Your task to perform on an android device: open app "Microsoft Excel" (install if not already installed) Image 0: 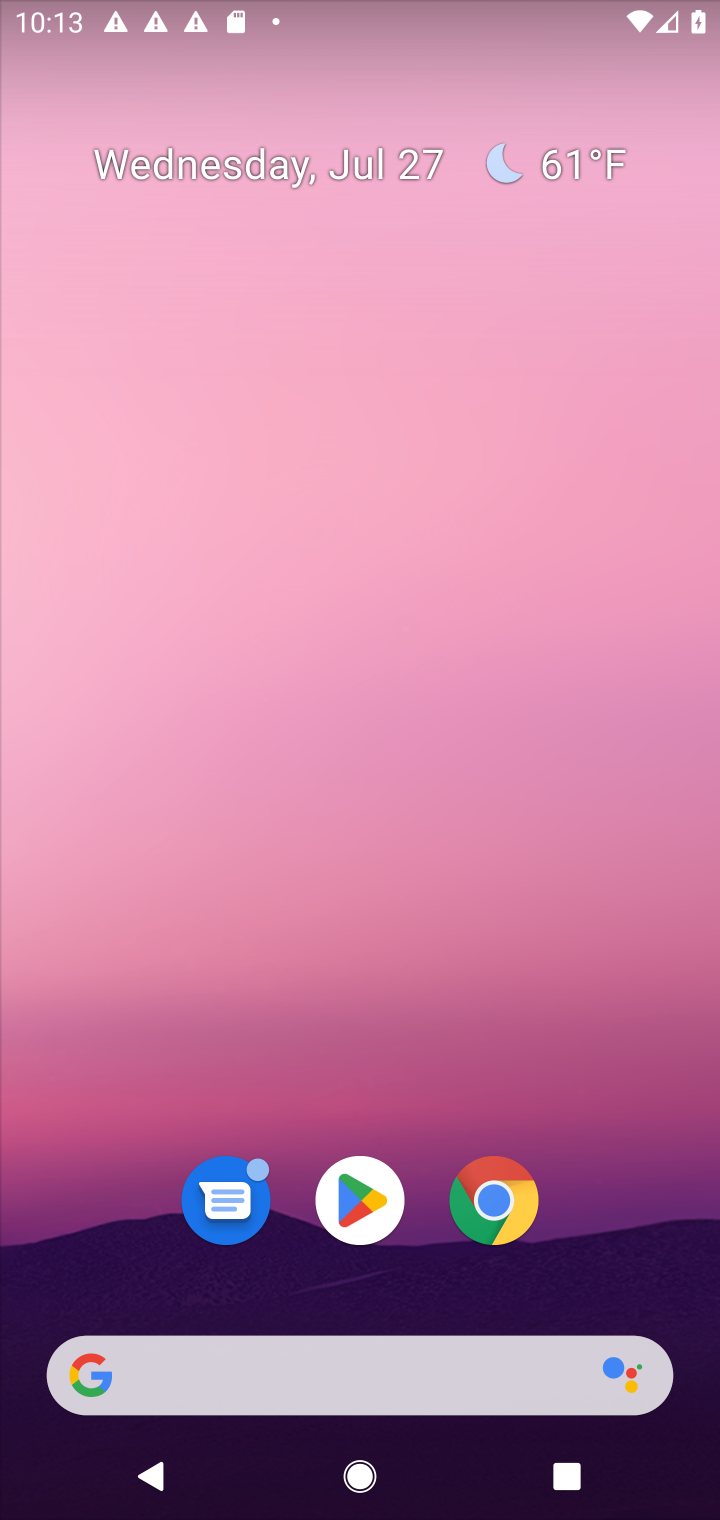
Step 0: click (389, 1204)
Your task to perform on an android device: open app "Microsoft Excel" (install if not already installed) Image 1: 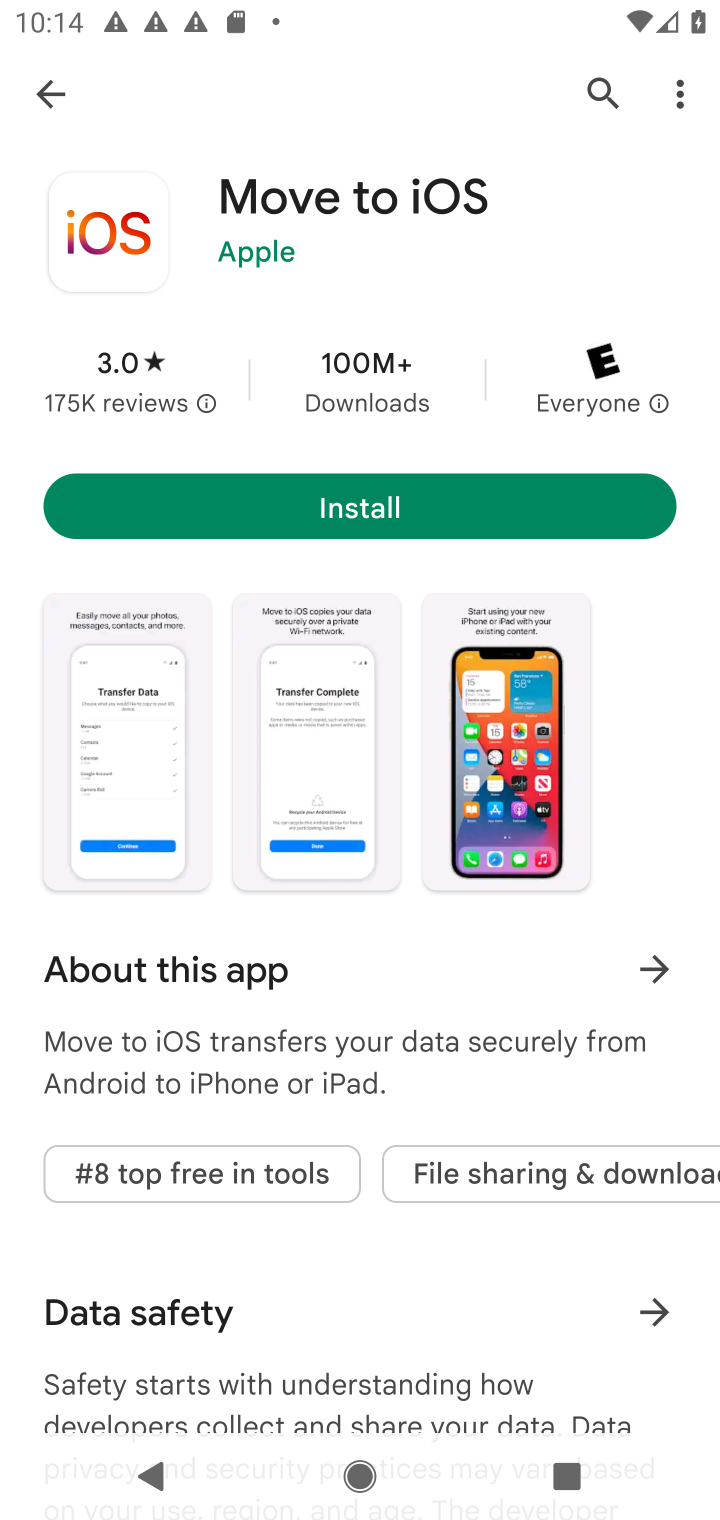
Step 1: click (44, 94)
Your task to perform on an android device: open app "Microsoft Excel" (install if not already installed) Image 2: 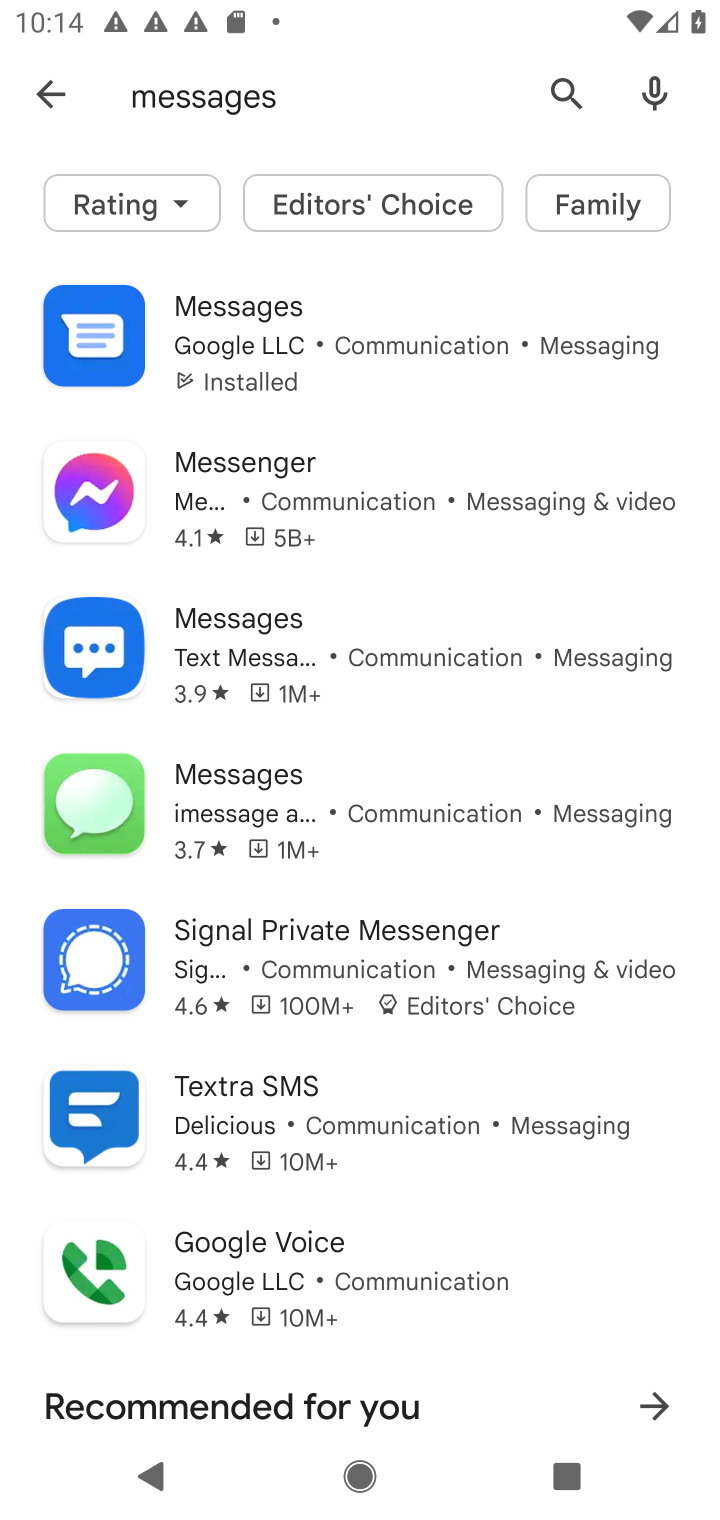
Step 2: click (554, 102)
Your task to perform on an android device: open app "Microsoft Excel" (install if not already installed) Image 3: 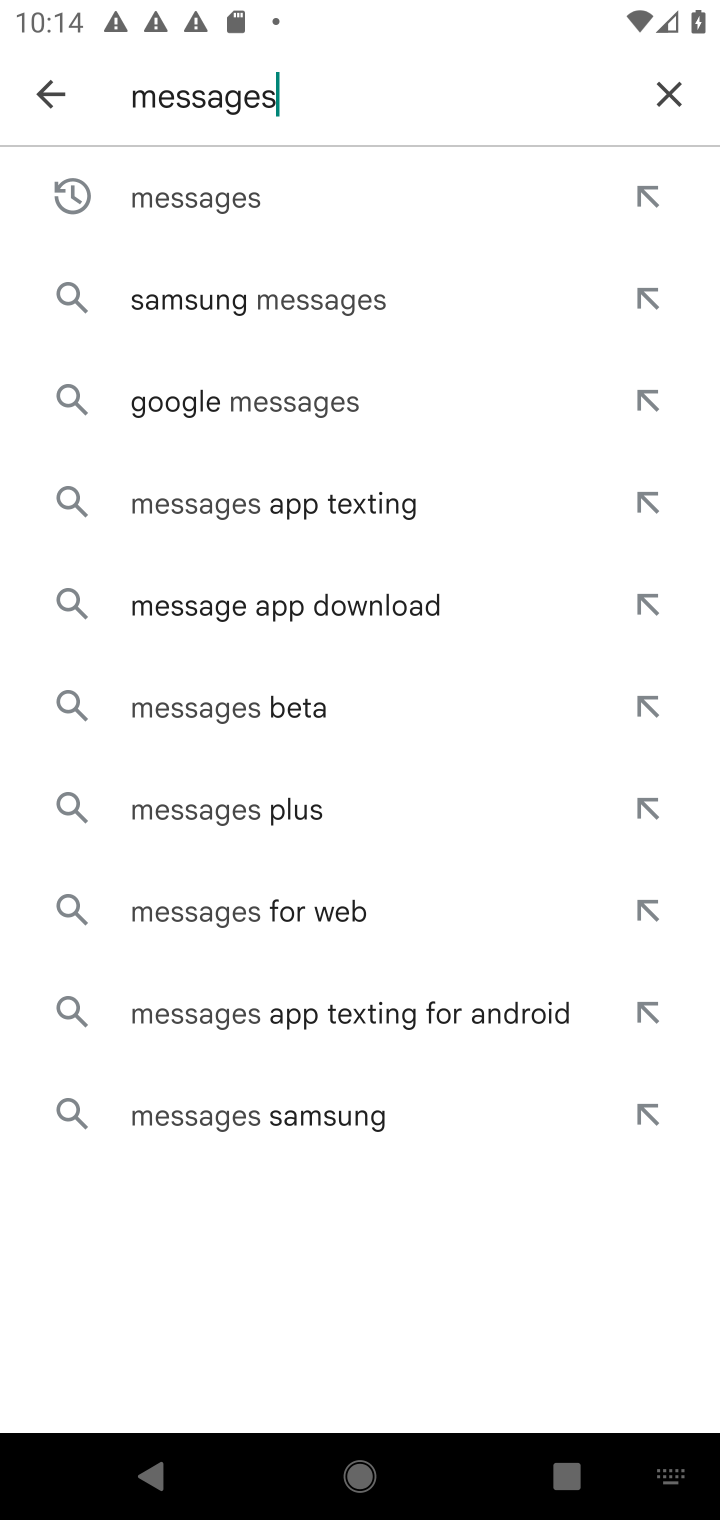
Step 3: click (664, 85)
Your task to perform on an android device: open app "Microsoft Excel" (install if not already installed) Image 4: 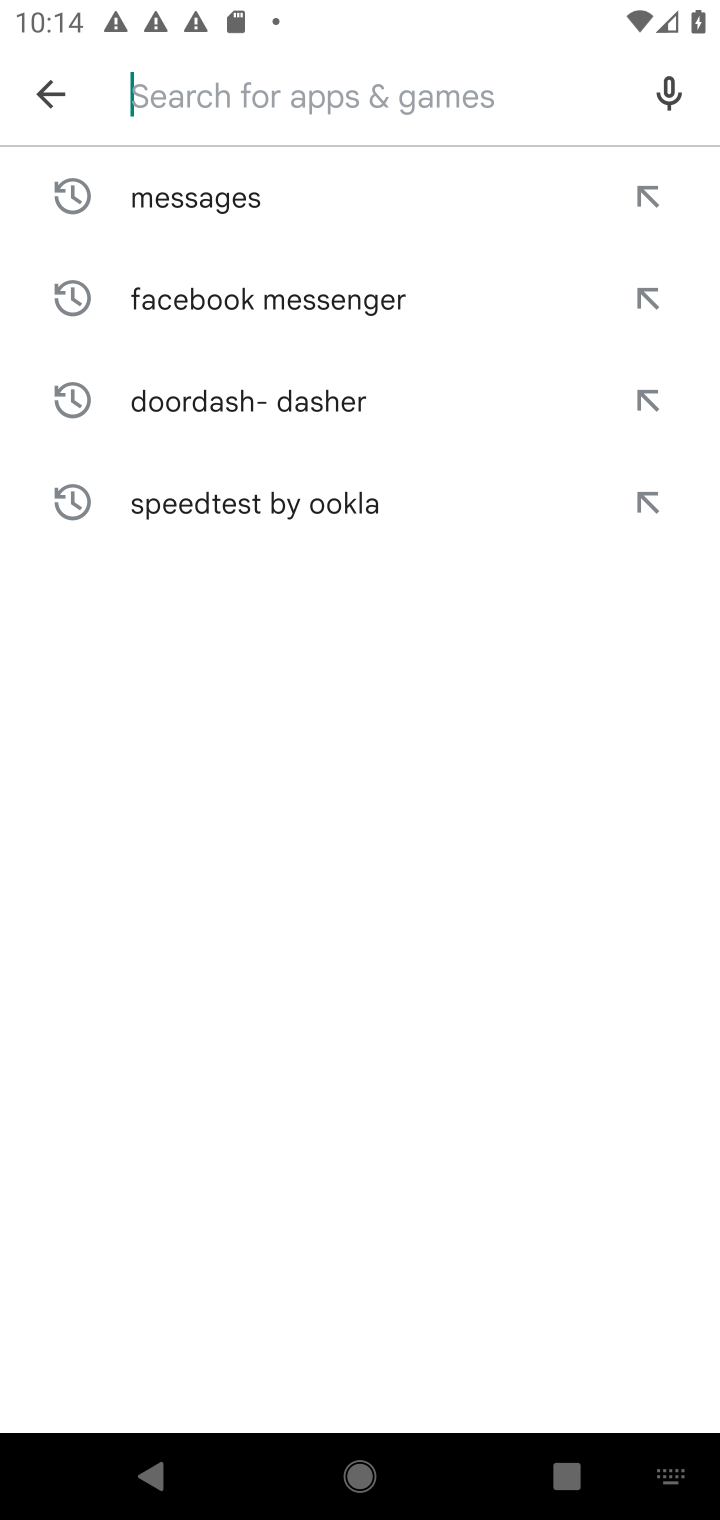
Step 4: type "microsoft excel"
Your task to perform on an android device: open app "Microsoft Excel" (install if not already installed) Image 5: 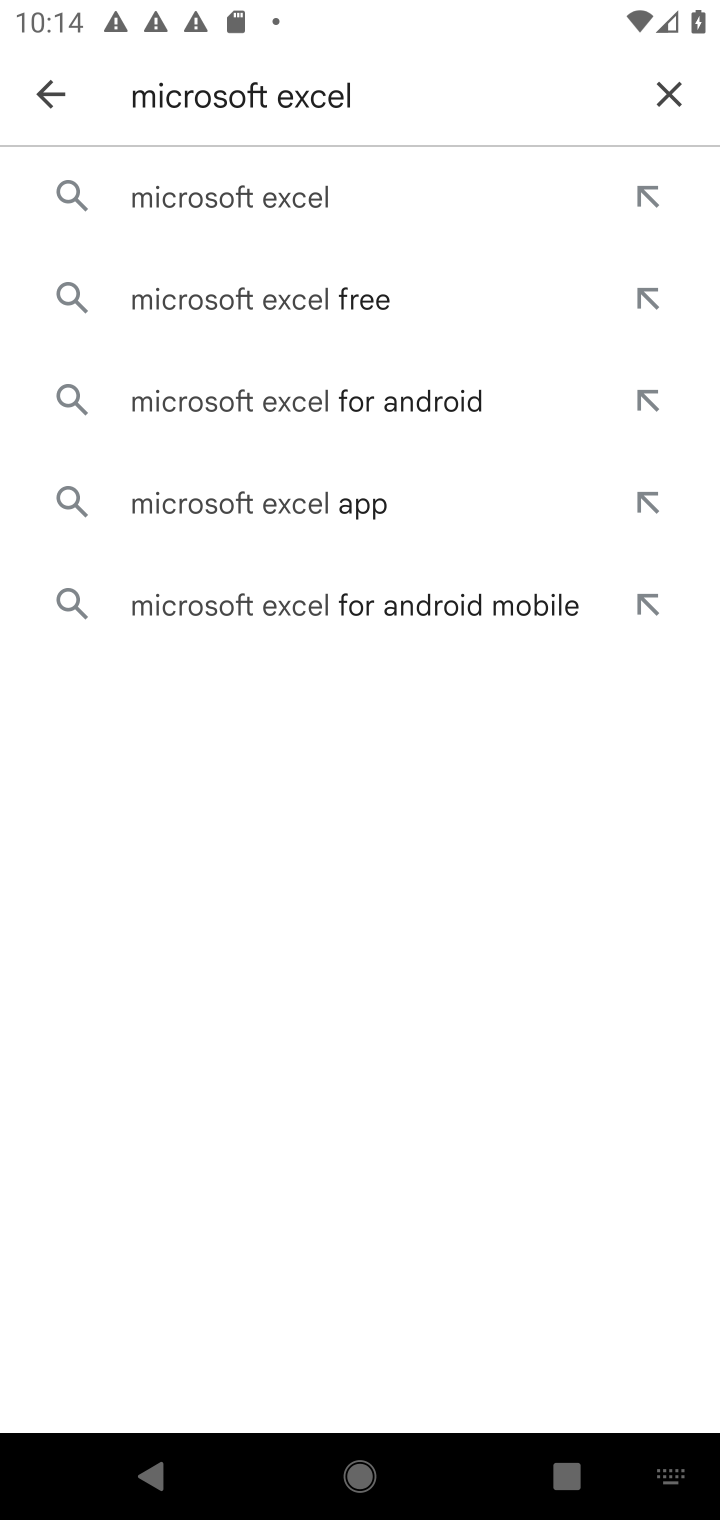
Step 5: click (234, 188)
Your task to perform on an android device: open app "Microsoft Excel" (install if not already installed) Image 6: 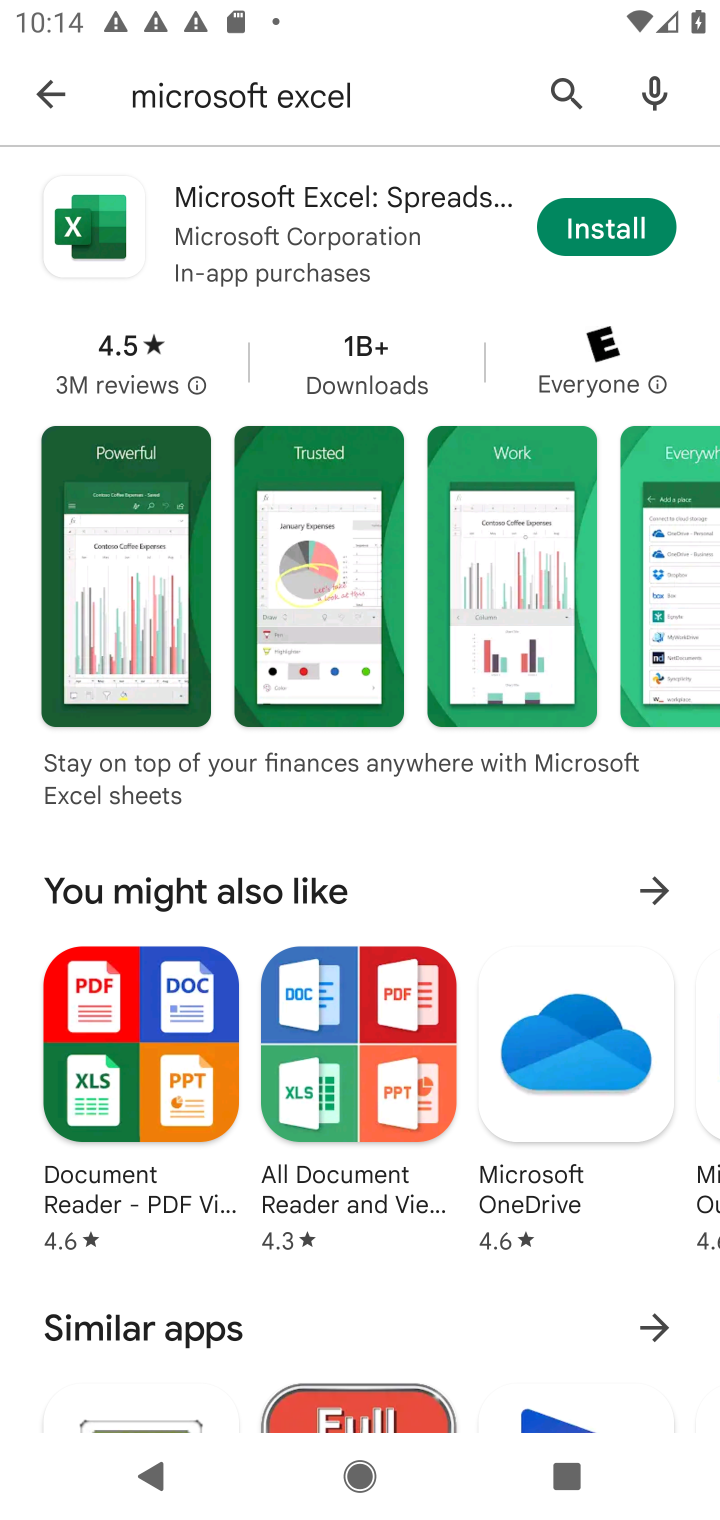
Step 6: click (582, 224)
Your task to perform on an android device: open app "Microsoft Excel" (install if not already installed) Image 7: 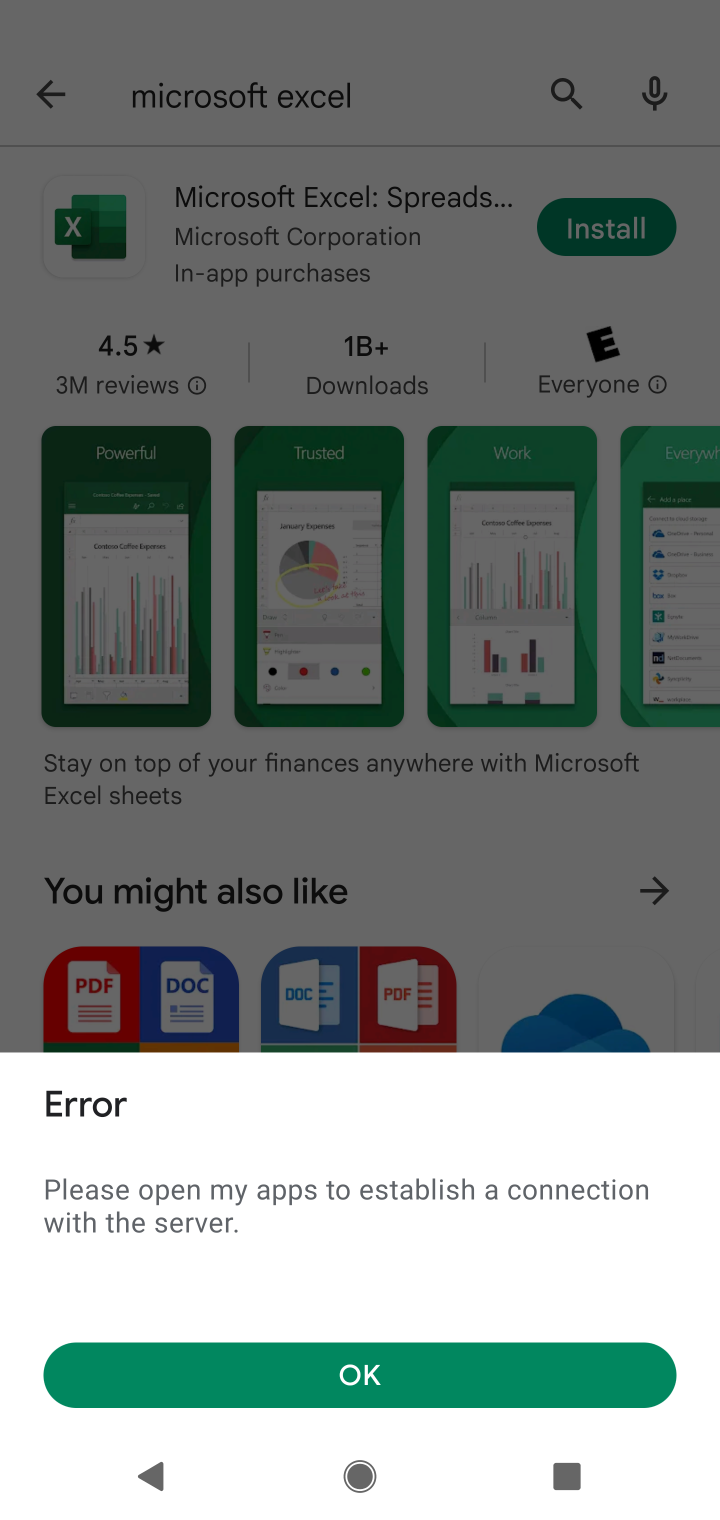
Step 7: click (367, 1366)
Your task to perform on an android device: open app "Microsoft Excel" (install if not already installed) Image 8: 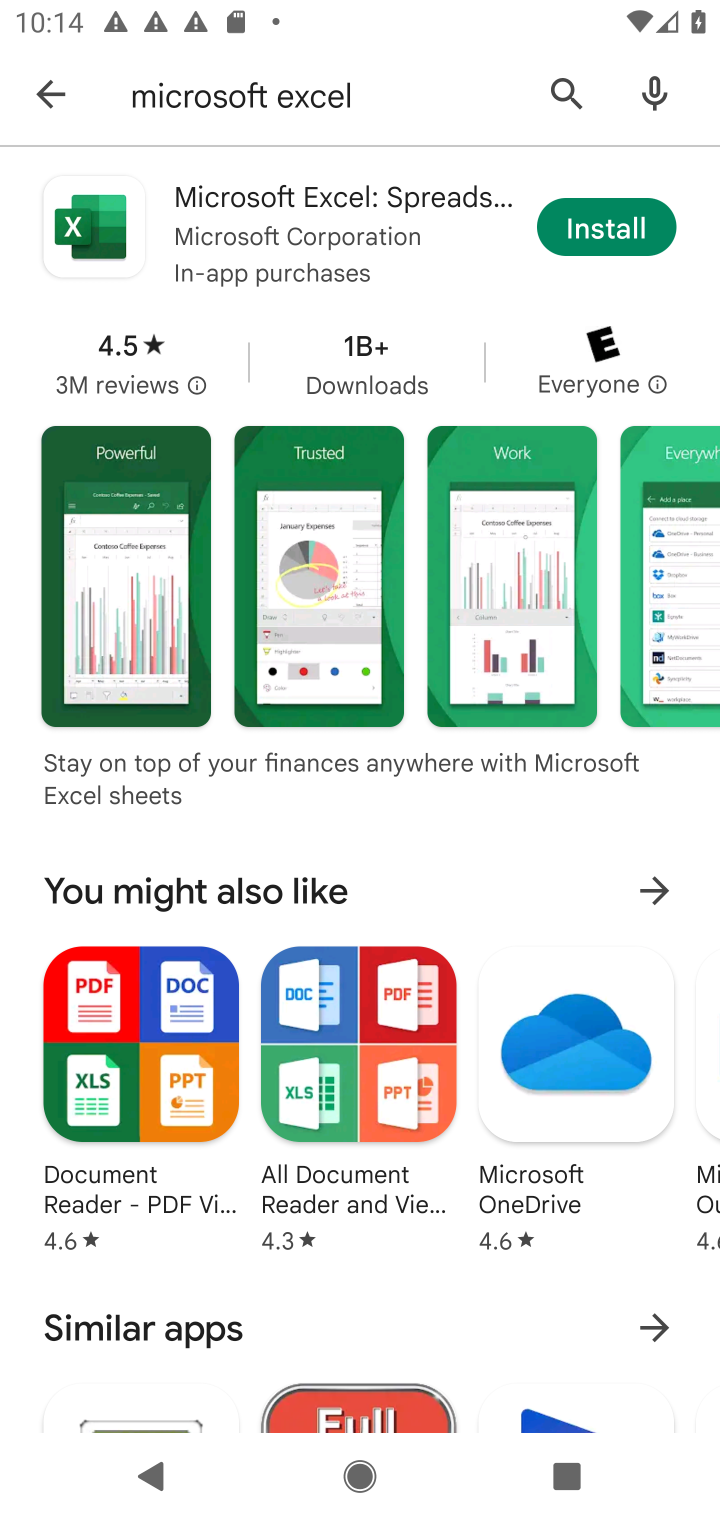
Step 8: task complete